Your task to perform on an android device: Open the calendar and show me this week's events Image 0: 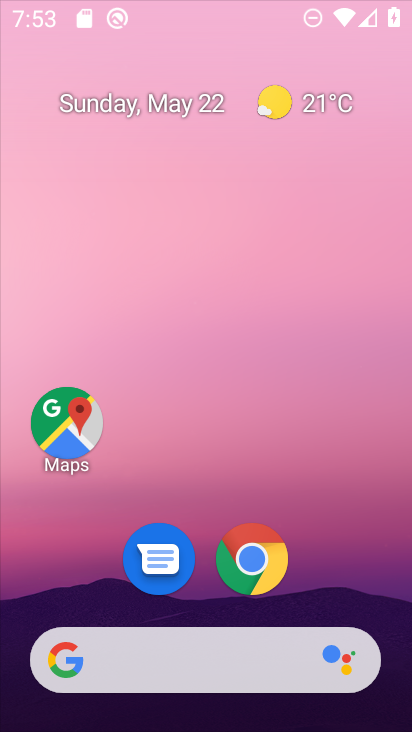
Step 0: press home button
Your task to perform on an android device: Open the calendar and show me this week's events Image 1: 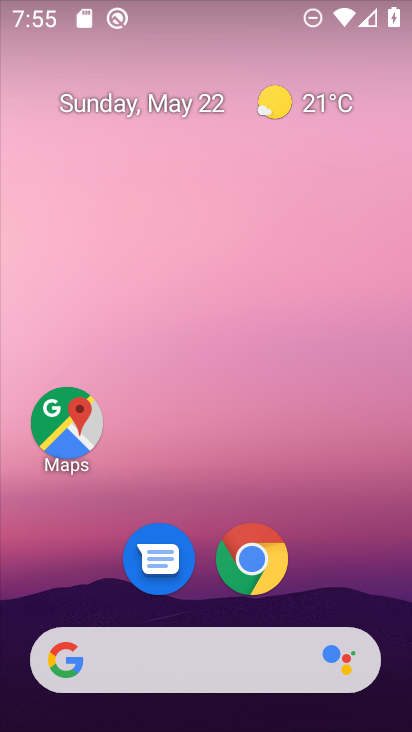
Step 1: drag from (274, 697) to (269, 353)
Your task to perform on an android device: Open the calendar and show me this week's events Image 2: 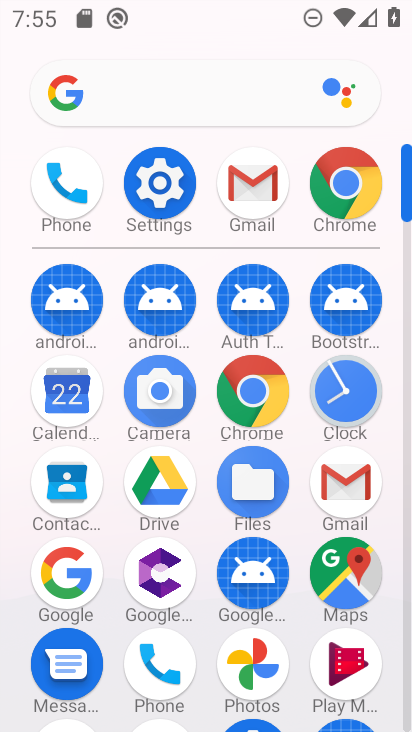
Step 2: click (73, 394)
Your task to perform on an android device: Open the calendar and show me this week's events Image 3: 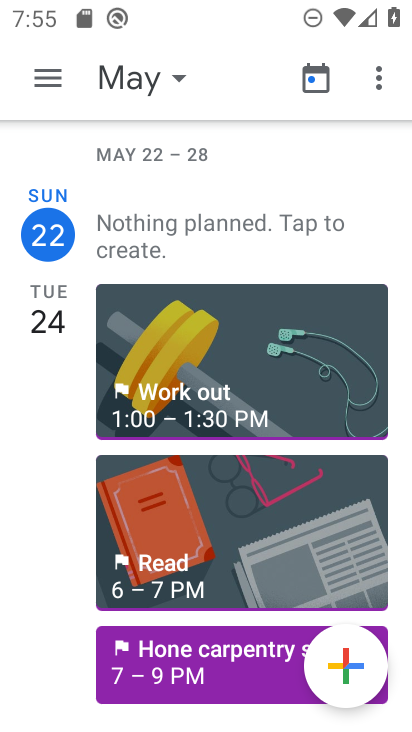
Step 3: click (51, 87)
Your task to perform on an android device: Open the calendar and show me this week's events Image 4: 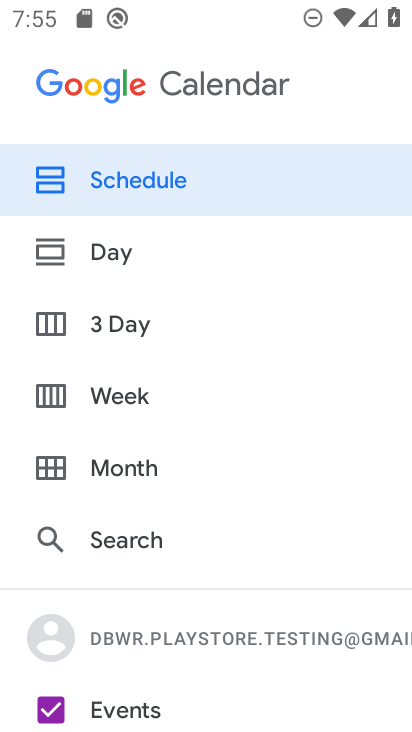
Step 4: click (142, 399)
Your task to perform on an android device: Open the calendar and show me this week's events Image 5: 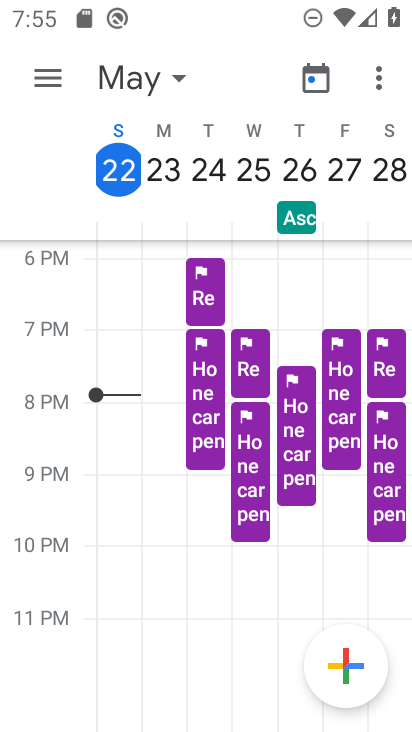
Step 5: task complete